Your task to perform on an android device: turn on wifi Image 0: 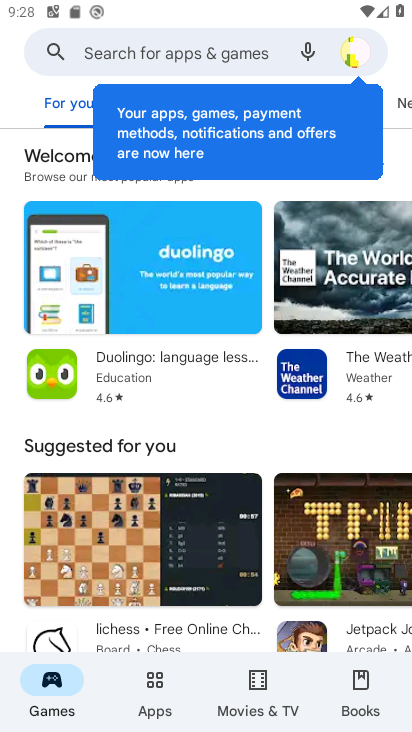
Step 0: press home button
Your task to perform on an android device: turn on wifi Image 1: 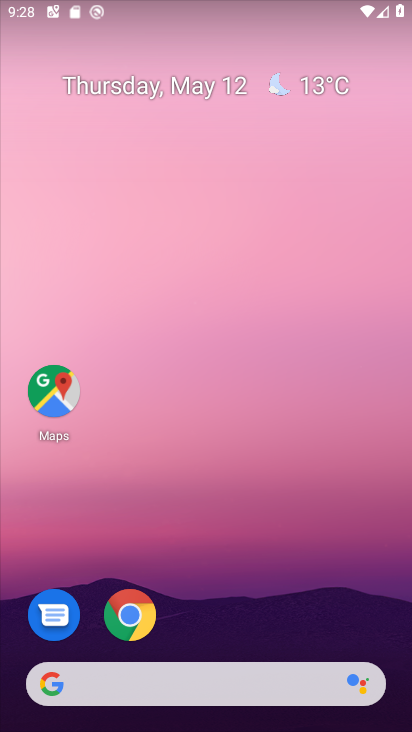
Step 1: drag from (235, 533) to (235, 104)
Your task to perform on an android device: turn on wifi Image 2: 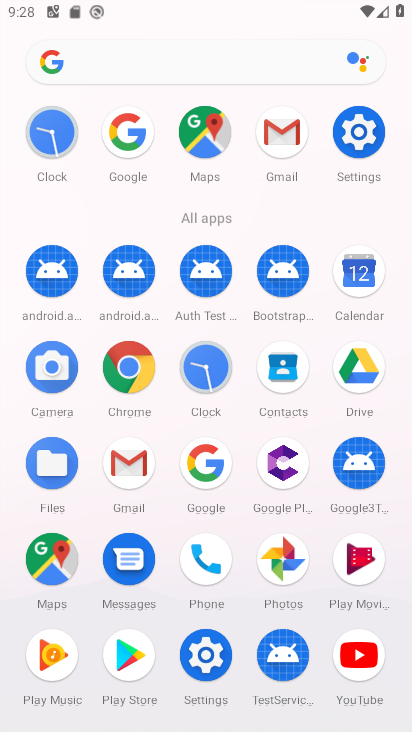
Step 2: click (361, 138)
Your task to perform on an android device: turn on wifi Image 3: 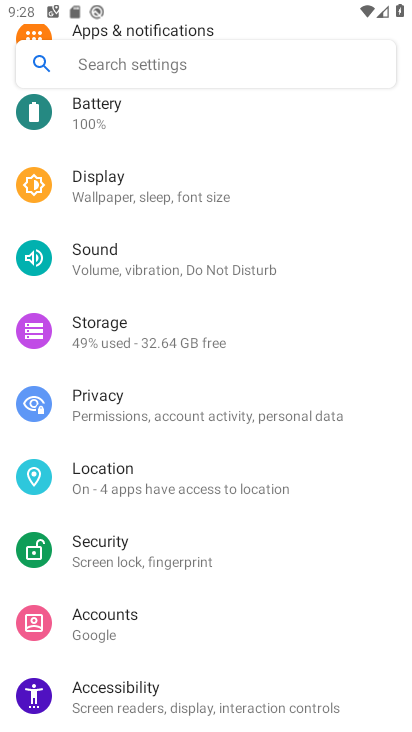
Step 3: drag from (158, 167) to (129, 523)
Your task to perform on an android device: turn on wifi Image 4: 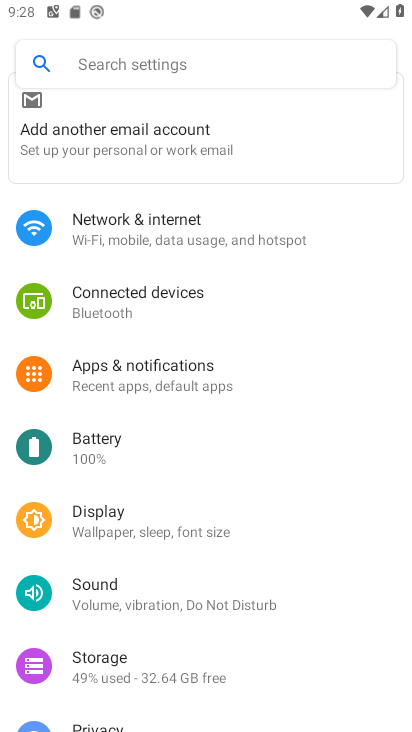
Step 4: click (130, 222)
Your task to perform on an android device: turn on wifi Image 5: 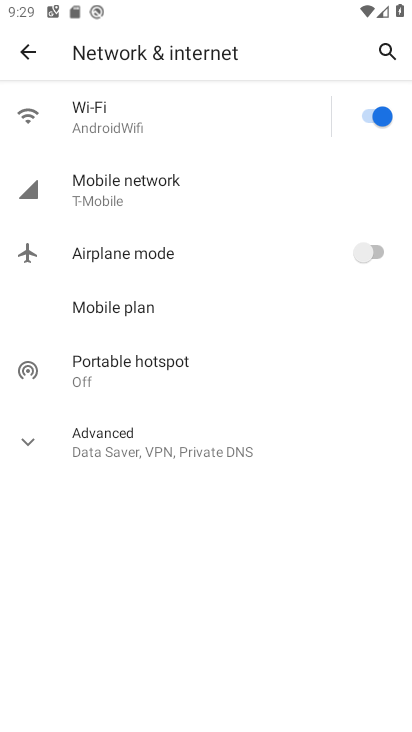
Step 5: task complete